Your task to perform on an android device: Open the map Image 0: 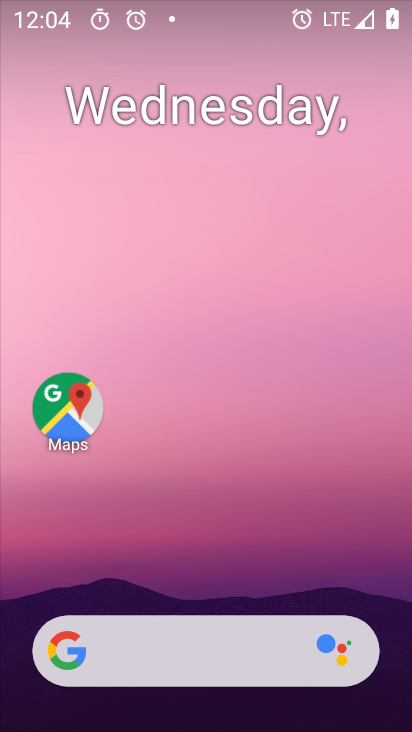
Step 0: click (56, 398)
Your task to perform on an android device: Open the map Image 1: 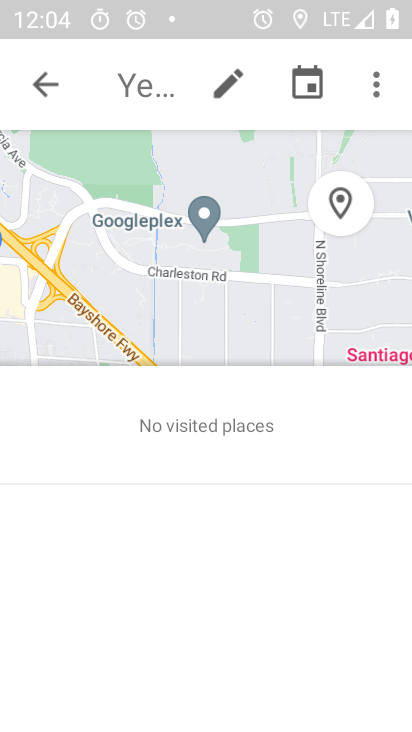
Step 1: task complete